Your task to perform on an android device: see sites visited before in the chrome app Image 0: 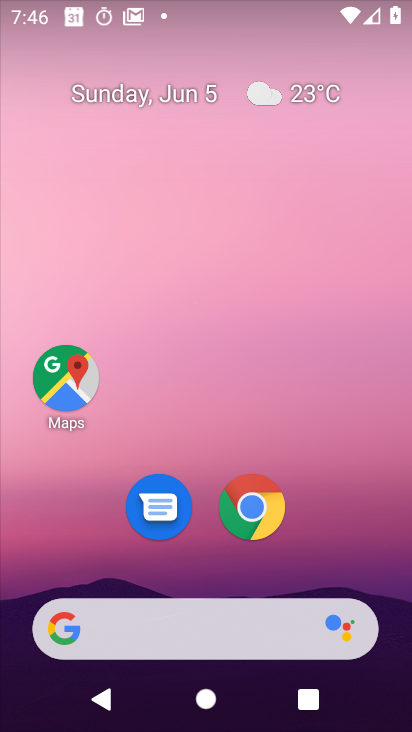
Step 0: drag from (262, 660) to (277, 117)
Your task to perform on an android device: see sites visited before in the chrome app Image 1: 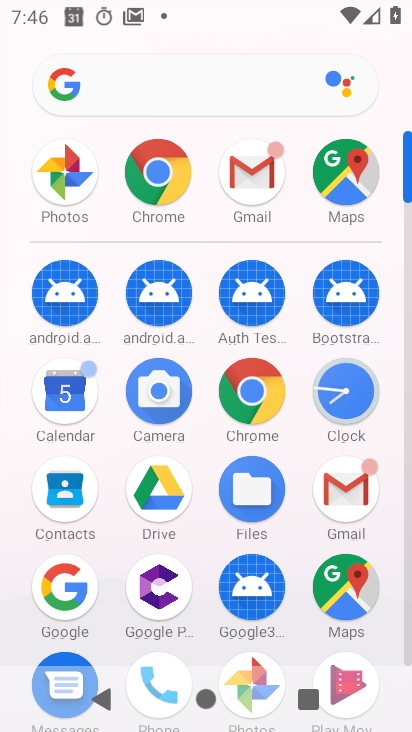
Step 1: click (160, 193)
Your task to perform on an android device: see sites visited before in the chrome app Image 2: 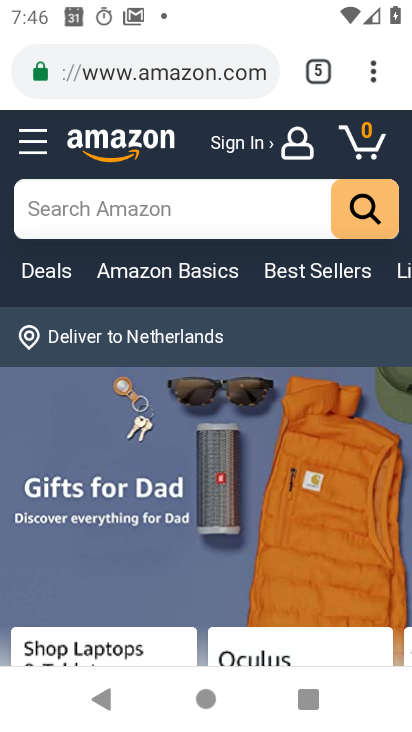
Step 2: click (357, 76)
Your task to perform on an android device: see sites visited before in the chrome app Image 3: 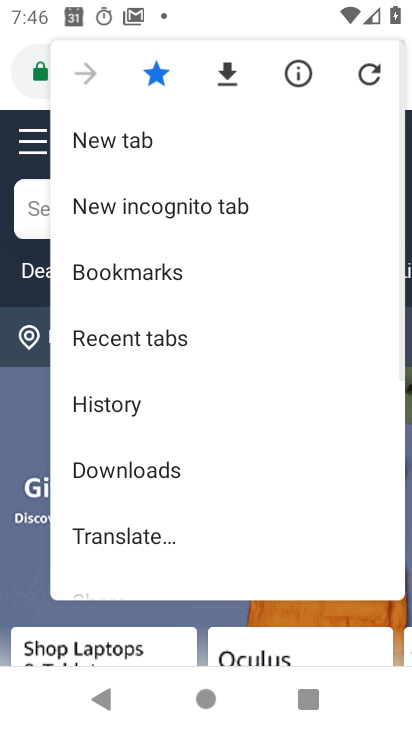
Step 3: drag from (141, 474) to (168, 201)
Your task to perform on an android device: see sites visited before in the chrome app Image 4: 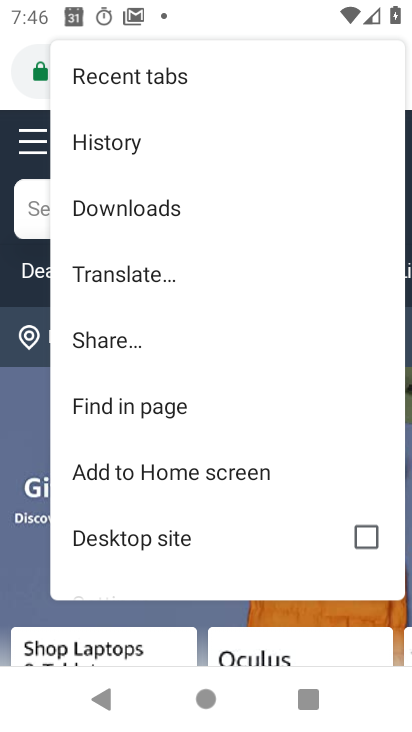
Step 4: drag from (127, 484) to (151, 350)
Your task to perform on an android device: see sites visited before in the chrome app Image 5: 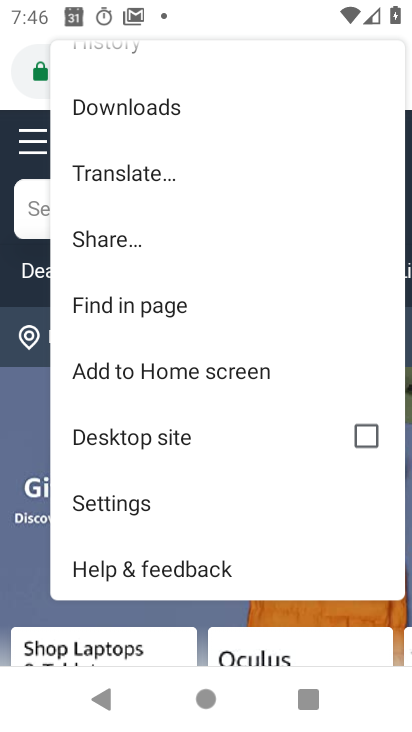
Step 5: click (166, 518)
Your task to perform on an android device: see sites visited before in the chrome app Image 6: 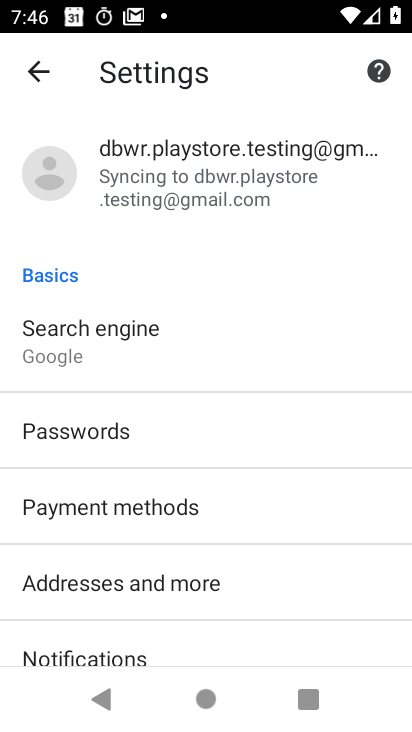
Step 6: drag from (136, 593) to (139, 327)
Your task to perform on an android device: see sites visited before in the chrome app Image 7: 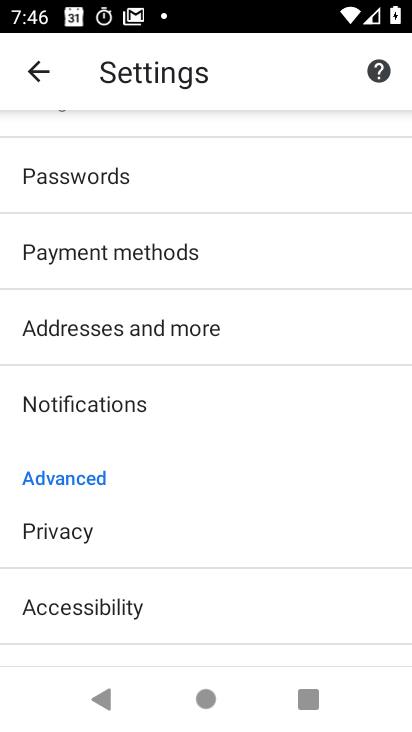
Step 7: drag from (132, 572) to (133, 338)
Your task to perform on an android device: see sites visited before in the chrome app Image 8: 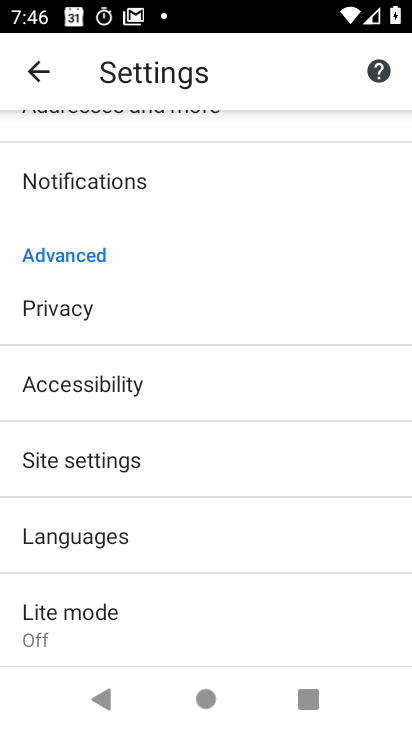
Step 8: click (110, 458)
Your task to perform on an android device: see sites visited before in the chrome app Image 9: 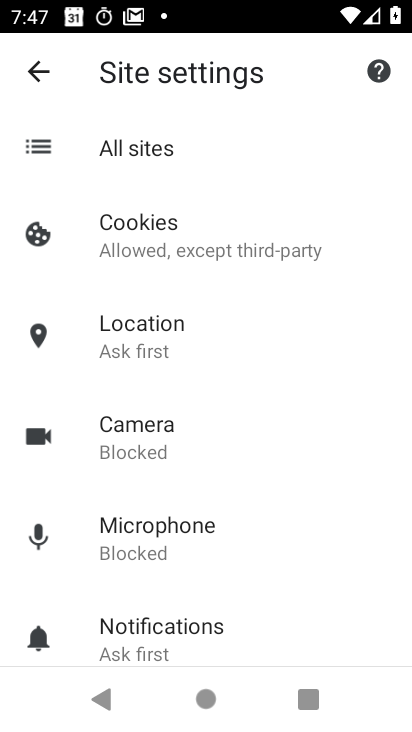
Step 9: click (159, 148)
Your task to perform on an android device: see sites visited before in the chrome app Image 10: 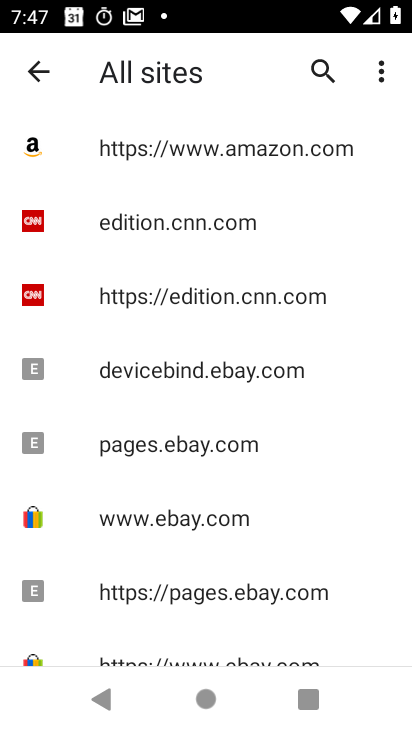
Step 10: click (204, 415)
Your task to perform on an android device: see sites visited before in the chrome app Image 11: 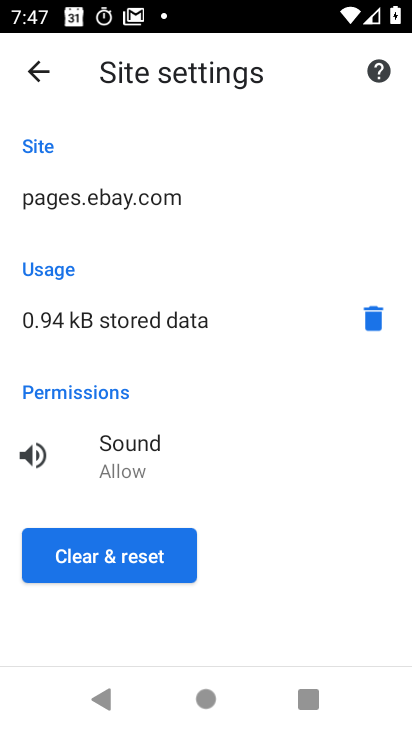
Step 11: task complete